Your task to perform on an android device: Search for the best rated book on Goodreads. Image 0: 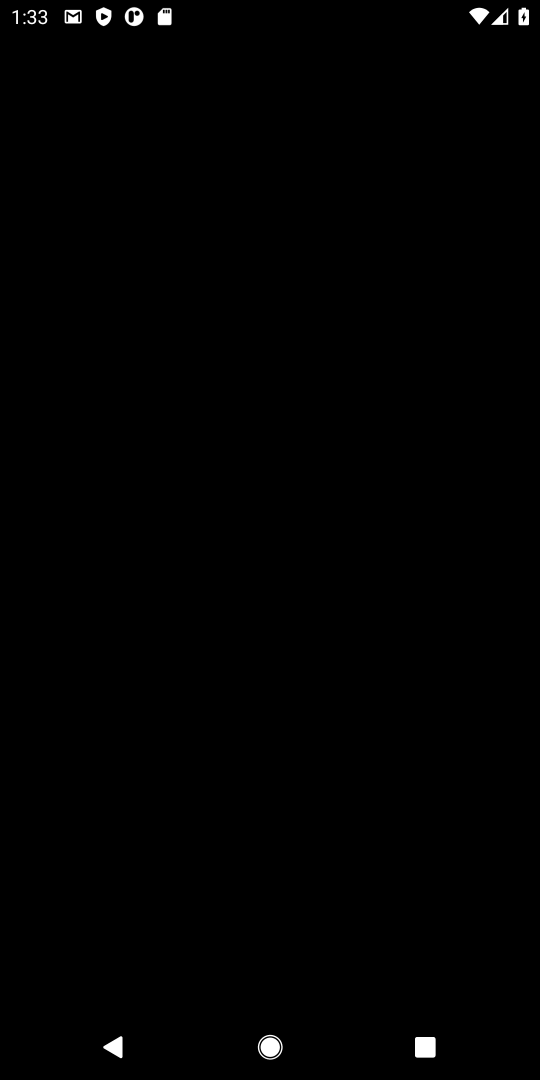
Step 0: press home button
Your task to perform on an android device: Search for the best rated book on Goodreads. Image 1: 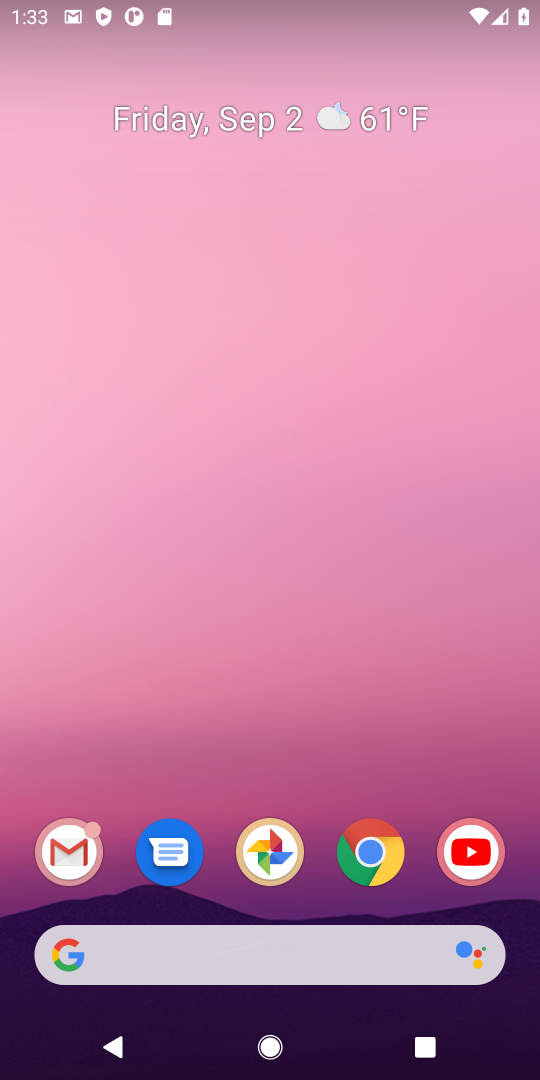
Step 1: press home button
Your task to perform on an android device: Search for the best rated book on Goodreads. Image 2: 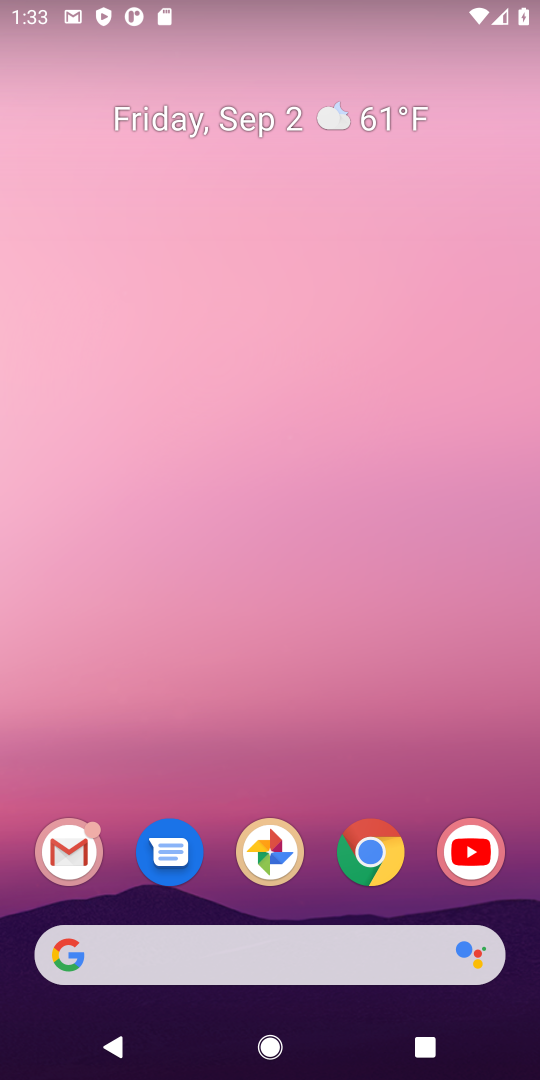
Step 2: drag from (300, 243) to (319, 155)
Your task to perform on an android device: Search for the best rated book on Goodreads. Image 3: 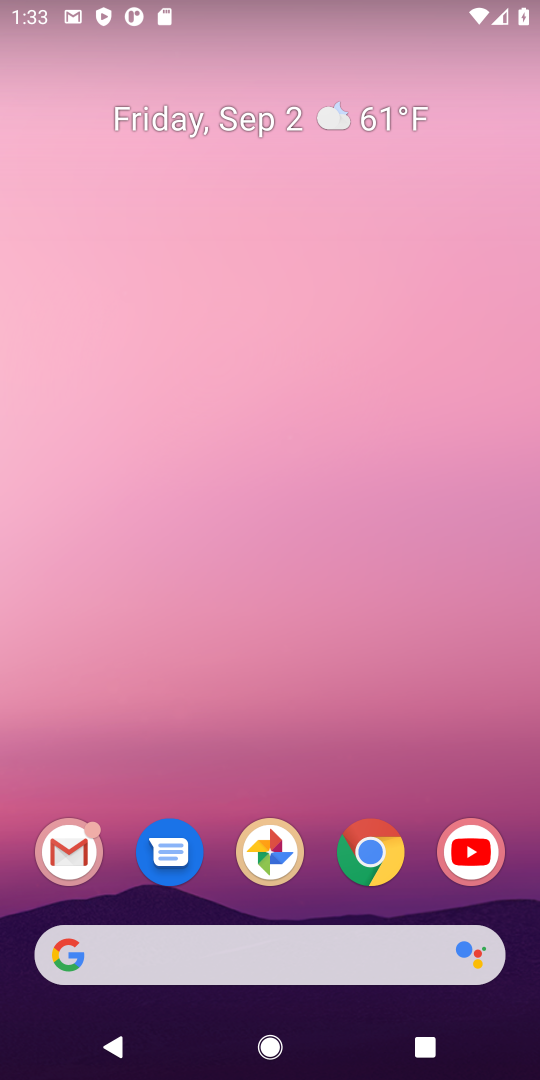
Step 3: drag from (383, 730) to (333, 2)
Your task to perform on an android device: Search for the best rated book on Goodreads. Image 4: 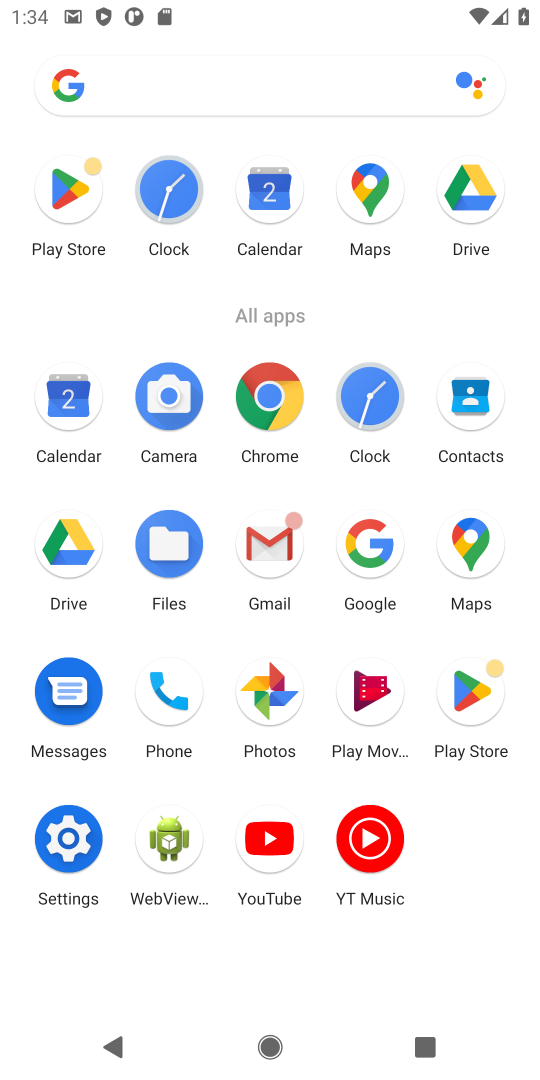
Step 4: click (263, 400)
Your task to perform on an android device: Search for the best rated book on Goodreads. Image 5: 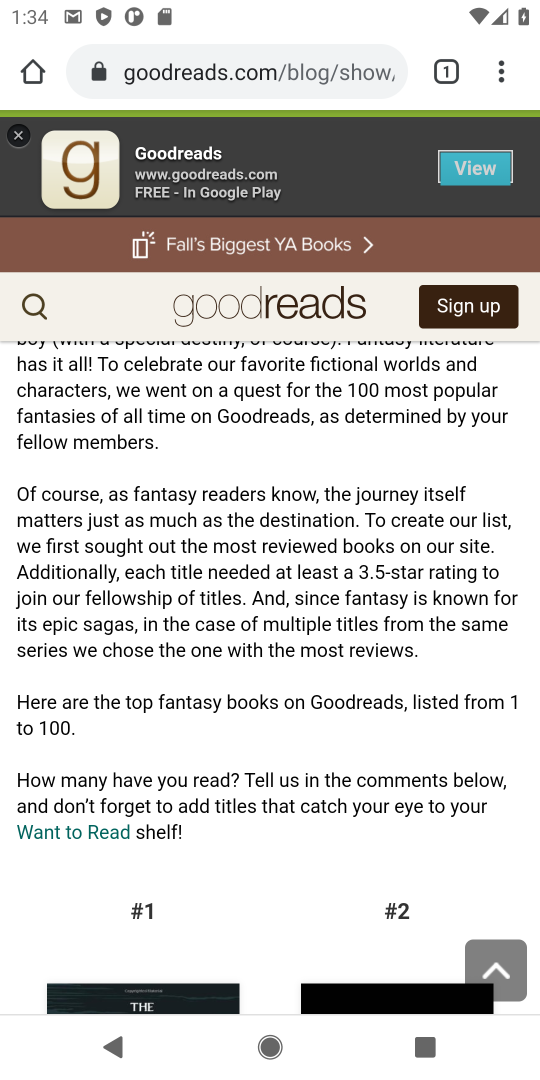
Step 5: drag from (297, 490) to (322, 984)
Your task to perform on an android device: Search for the best rated book on Goodreads. Image 6: 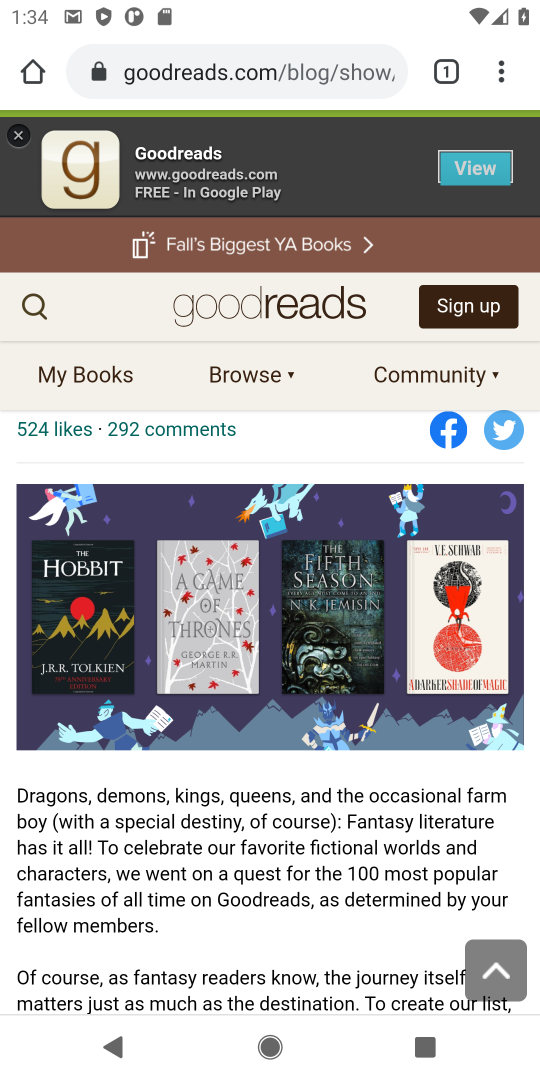
Step 6: click (344, 742)
Your task to perform on an android device: Search for the best rated book on Goodreads. Image 7: 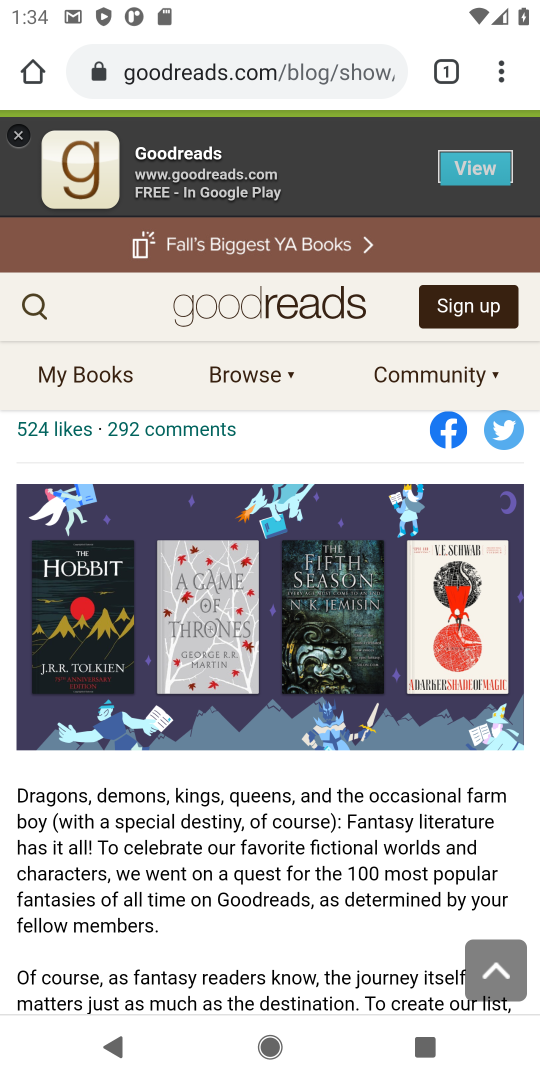
Step 7: task complete